Your task to perform on an android device: Open Android settings Image 0: 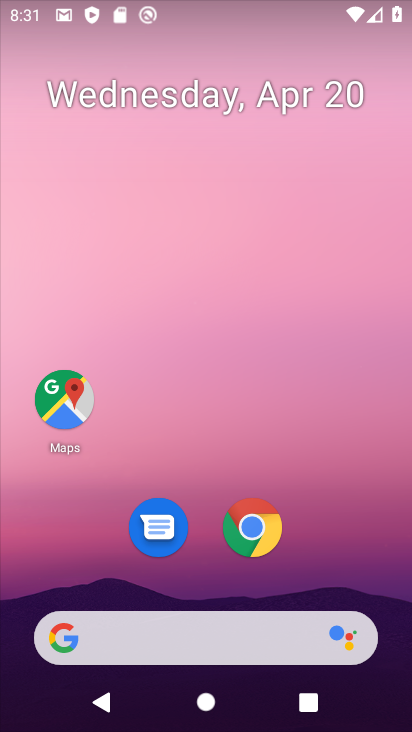
Step 0: drag from (309, 552) to (0, 37)
Your task to perform on an android device: Open Android settings Image 1: 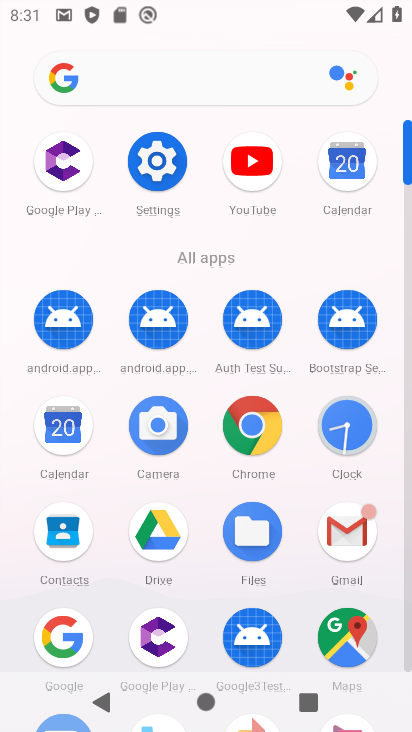
Step 1: click (168, 170)
Your task to perform on an android device: Open Android settings Image 2: 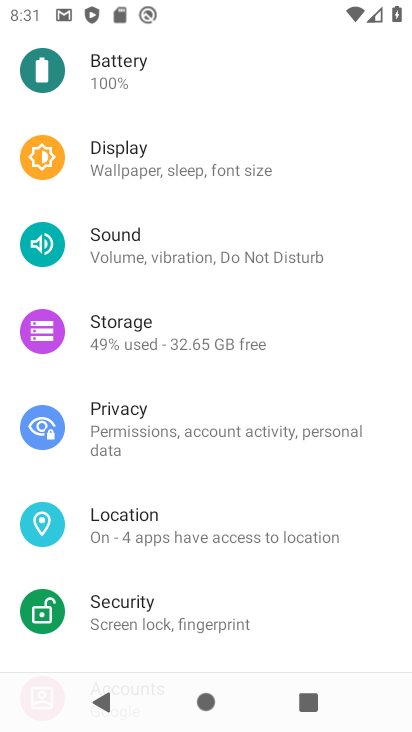
Step 2: drag from (257, 428) to (294, 105)
Your task to perform on an android device: Open Android settings Image 3: 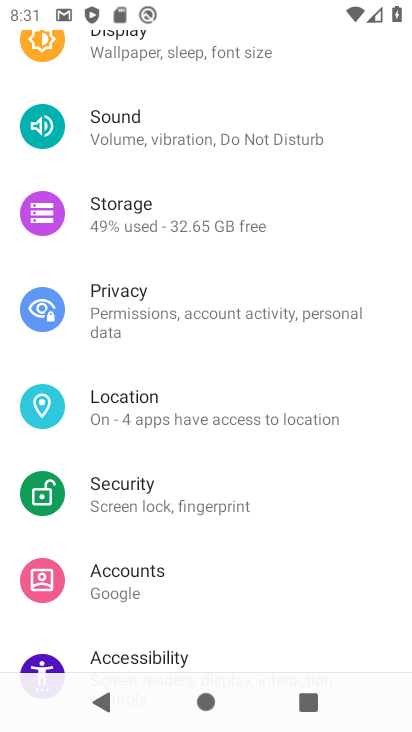
Step 3: drag from (253, 564) to (257, 127)
Your task to perform on an android device: Open Android settings Image 4: 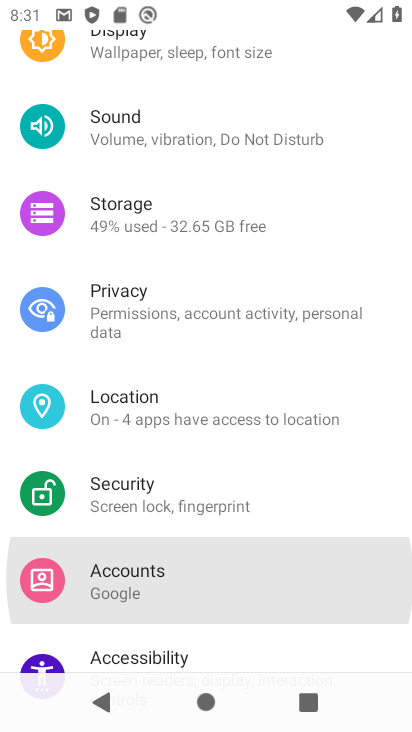
Step 4: drag from (184, 622) to (230, 209)
Your task to perform on an android device: Open Android settings Image 5: 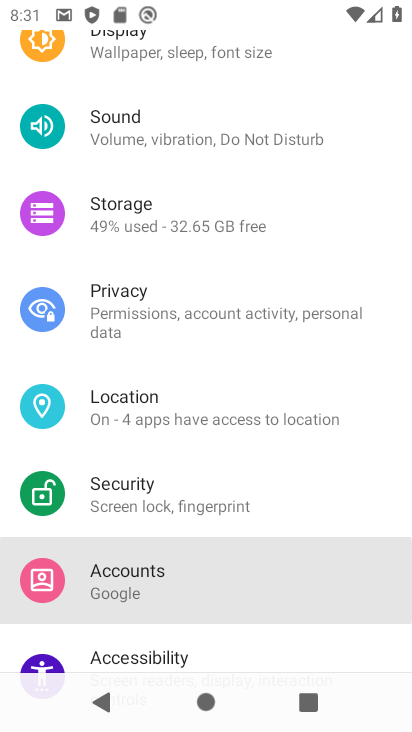
Step 5: drag from (194, 676) to (252, 290)
Your task to perform on an android device: Open Android settings Image 6: 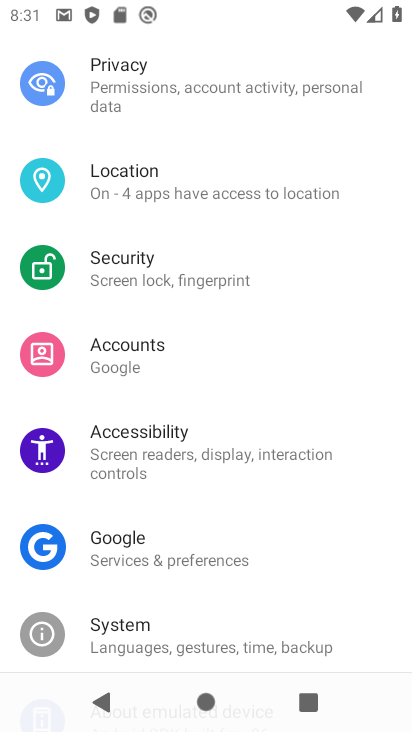
Step 6: drag from (178, 560) to (207, 183)
Your task to perform on an android device: Open Android settings Image 7: 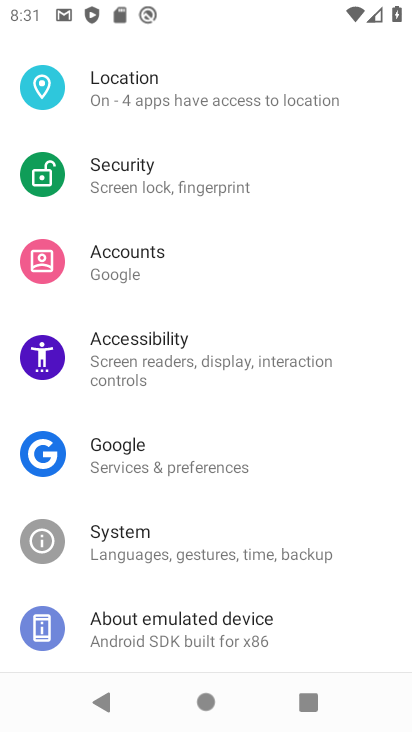
Step 7: click (117, 620)
Your task to perform on an android device: Open Android settings Image 8: 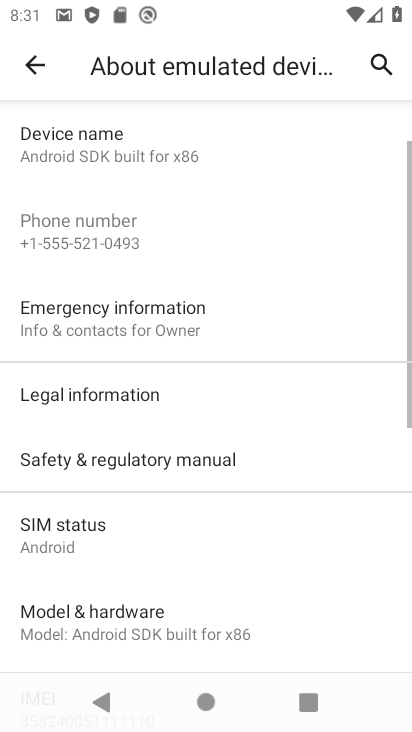
Step 8: click (170, 336)
Your task to perform on an android device: Open Android settings Image 9: 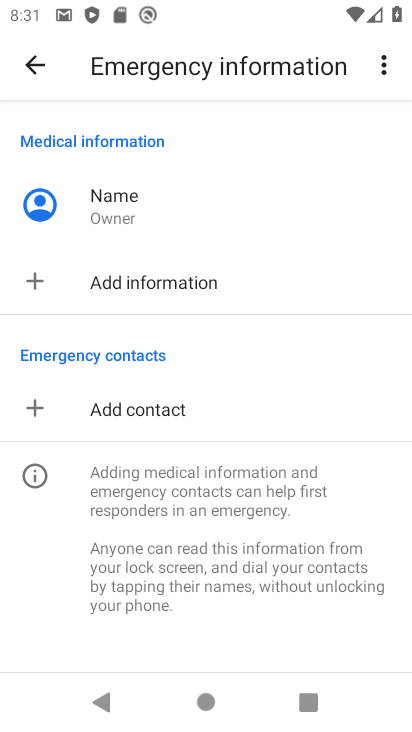
Step 9: click (35, 61)
Your task to perform on an android device: Open Android settings Image 10: 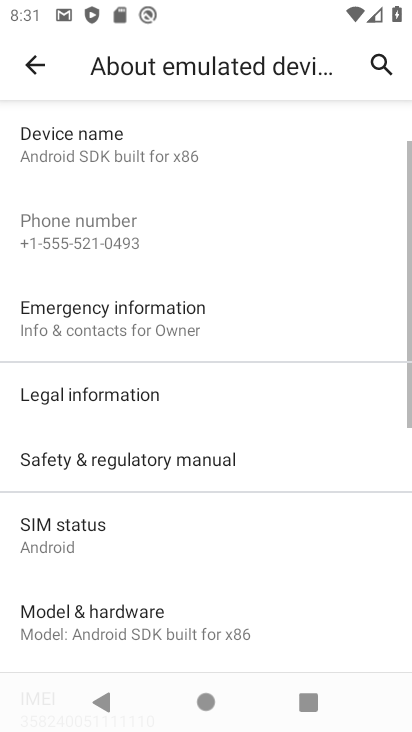
Step 10: drag from (333, 604) to (302, 1)
Your task to perform on an android device: Open Android settings Image 11: 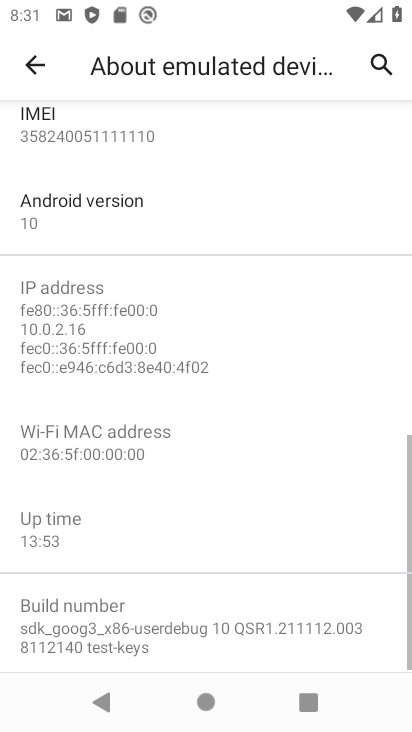
Step 11: drag from (193, 344) to (193, 226)
Your task to perform on an android device: Open Android settings Image 12: 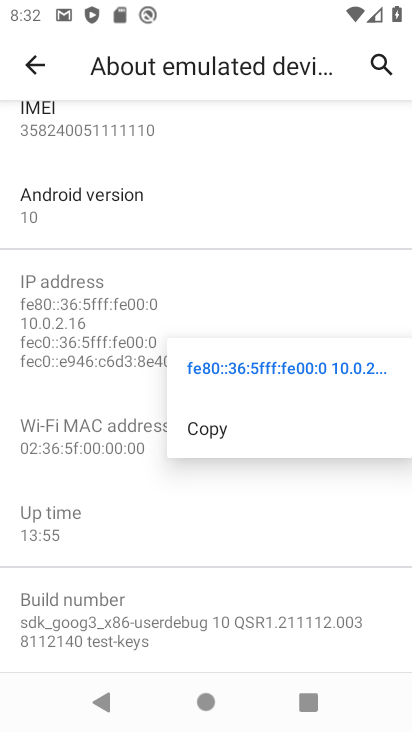
Step 12: click (193, 226)
Your task to perform on an android device: Open Android settings Image 13: 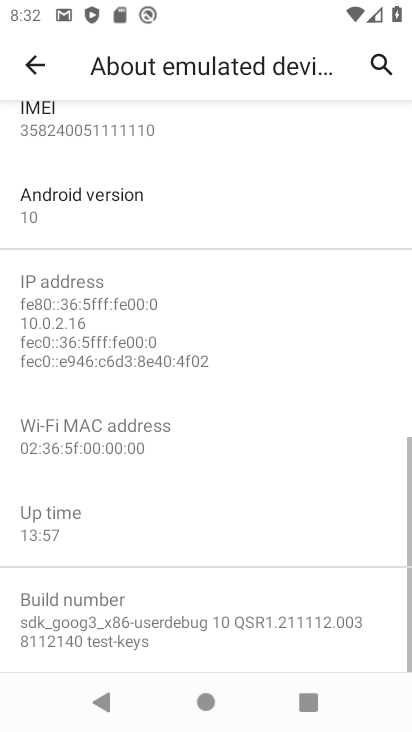
Step 13: click (193, 226)
Your task to perform on an android device: Open Android settings Image 14: 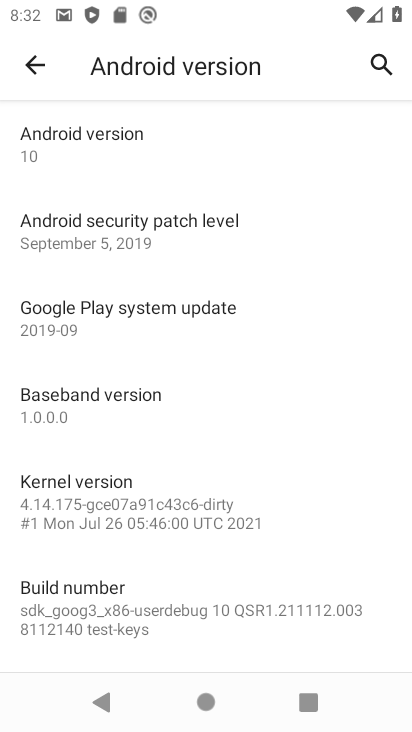
Step 14: task complete